Your task to perform on an android device: Where can I buy a nice beach towel? Image 0: 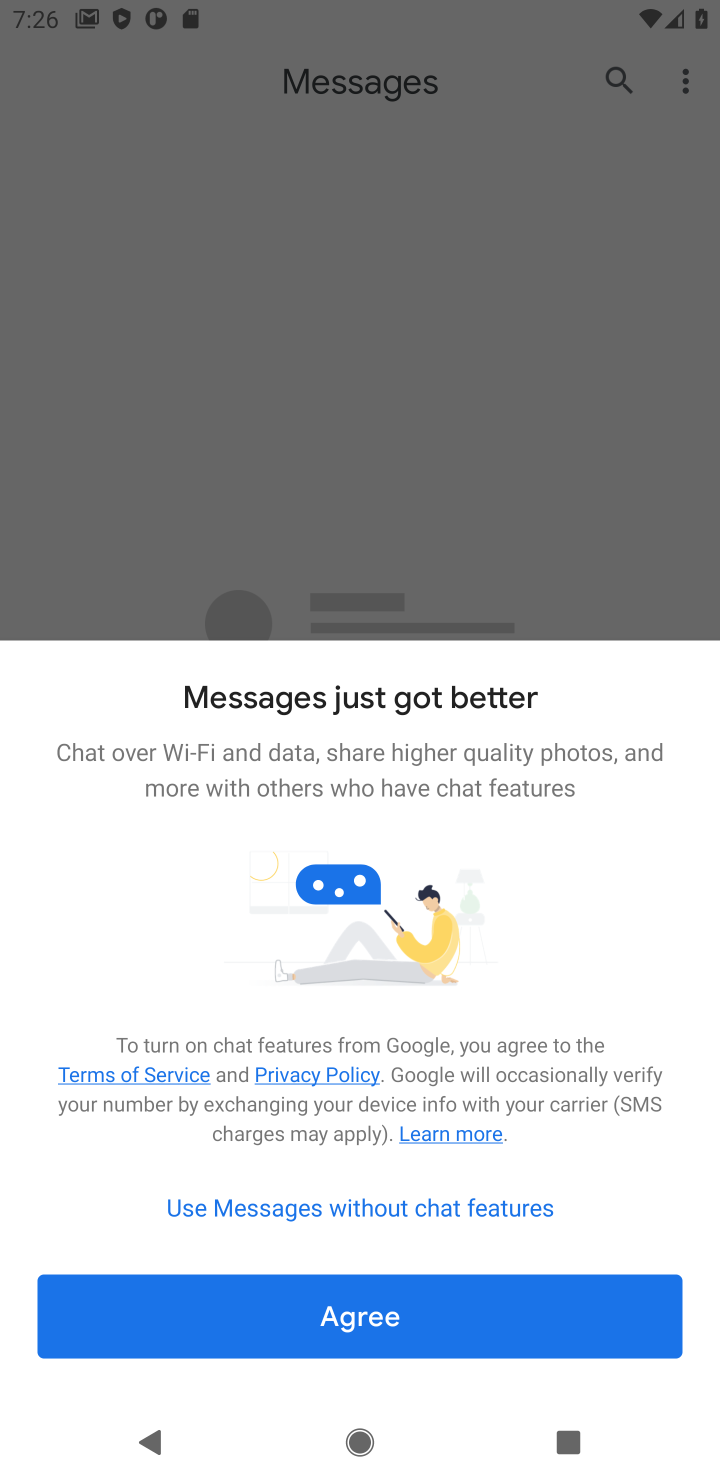
Step 0: press home button
Your task to perform on an android device: Where can I buy a nice beach towel? Image 1: 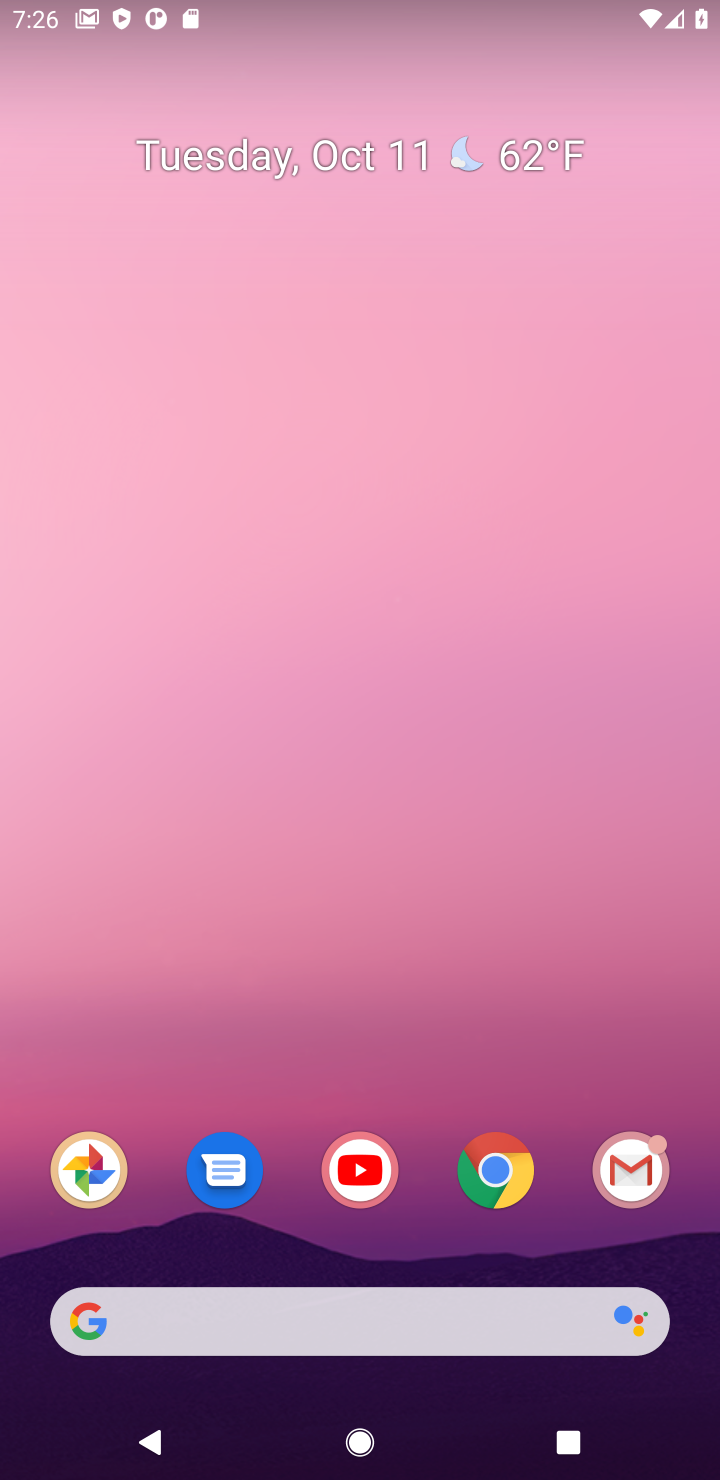
Step 1: drag from (324, 863) to (314, 205)
Your task to perform on an android device: Where can I buy a nice beach towel? Image 2: 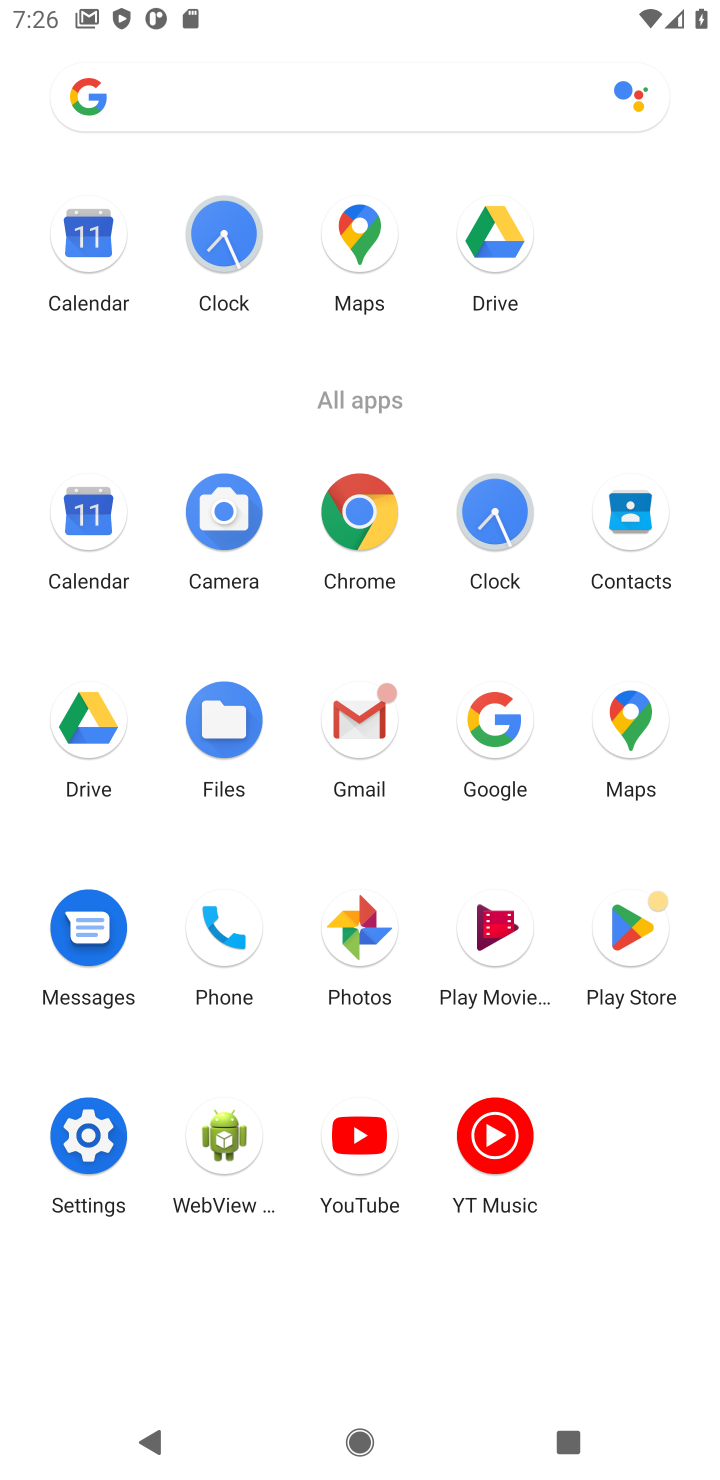
Step 2: click (483, 709)
Your task to perform on an android device: Where can I buy a nice beach towel? Image 3: 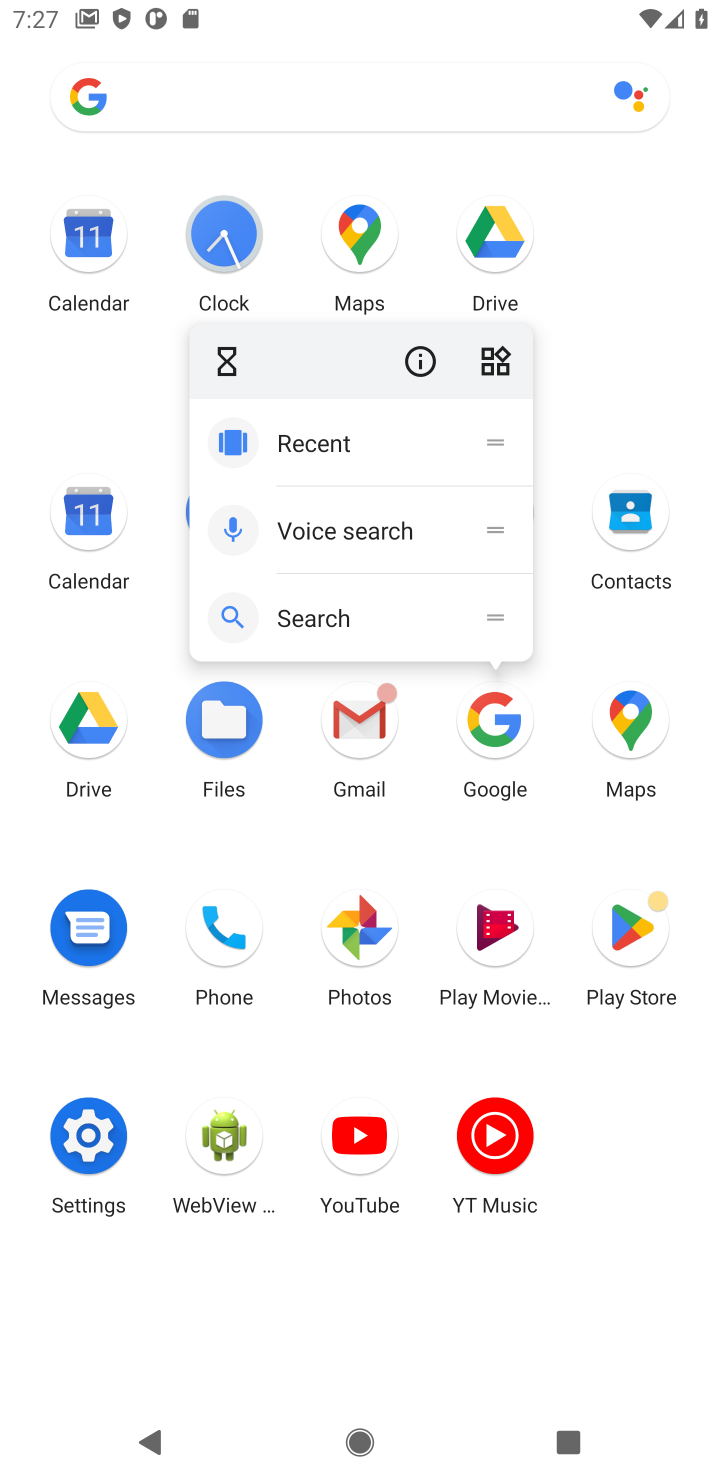
Step 3: click (483, 712)
Your task to perform on an android device: Where can I buy a nice beach towel? Image 4: 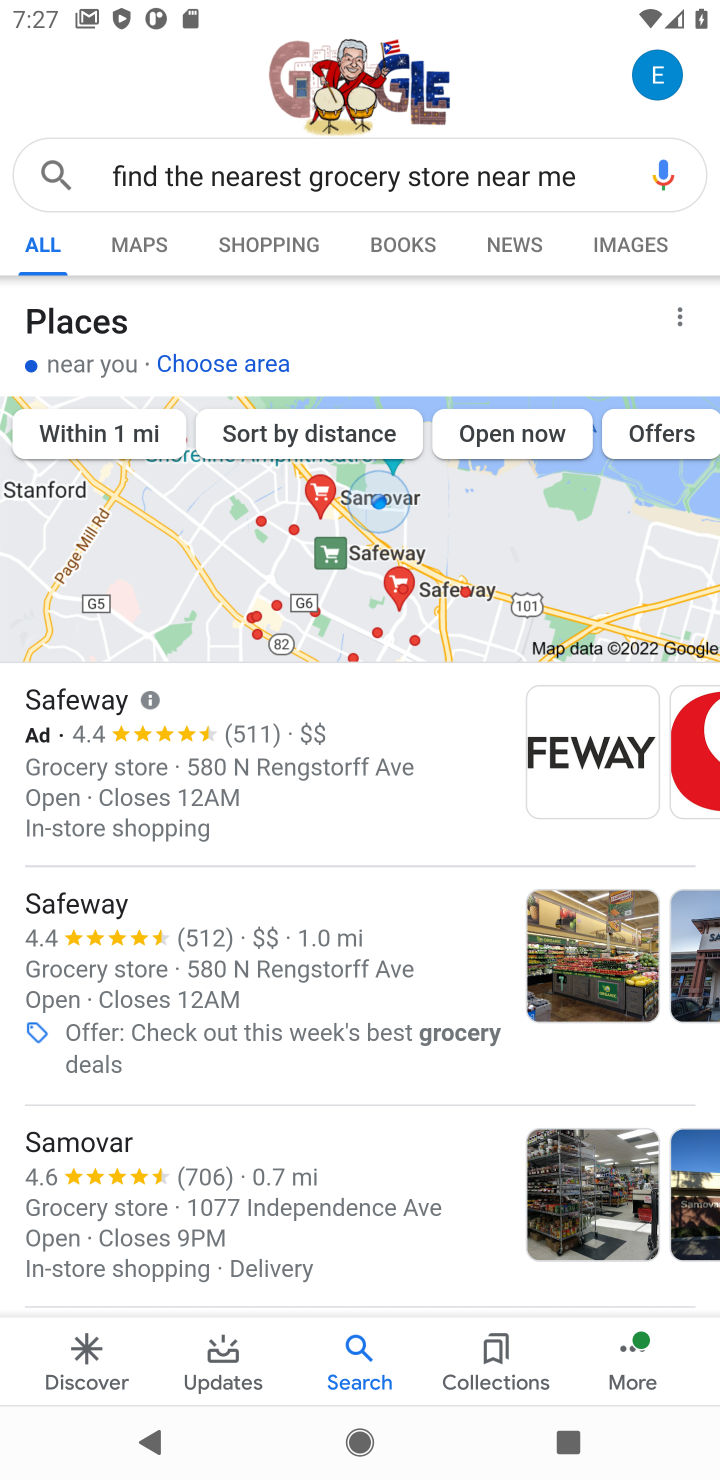
Step 4: click (401, 168)
Your task to perform on an android device: Where can I buy a nice beach towel? Image 5: 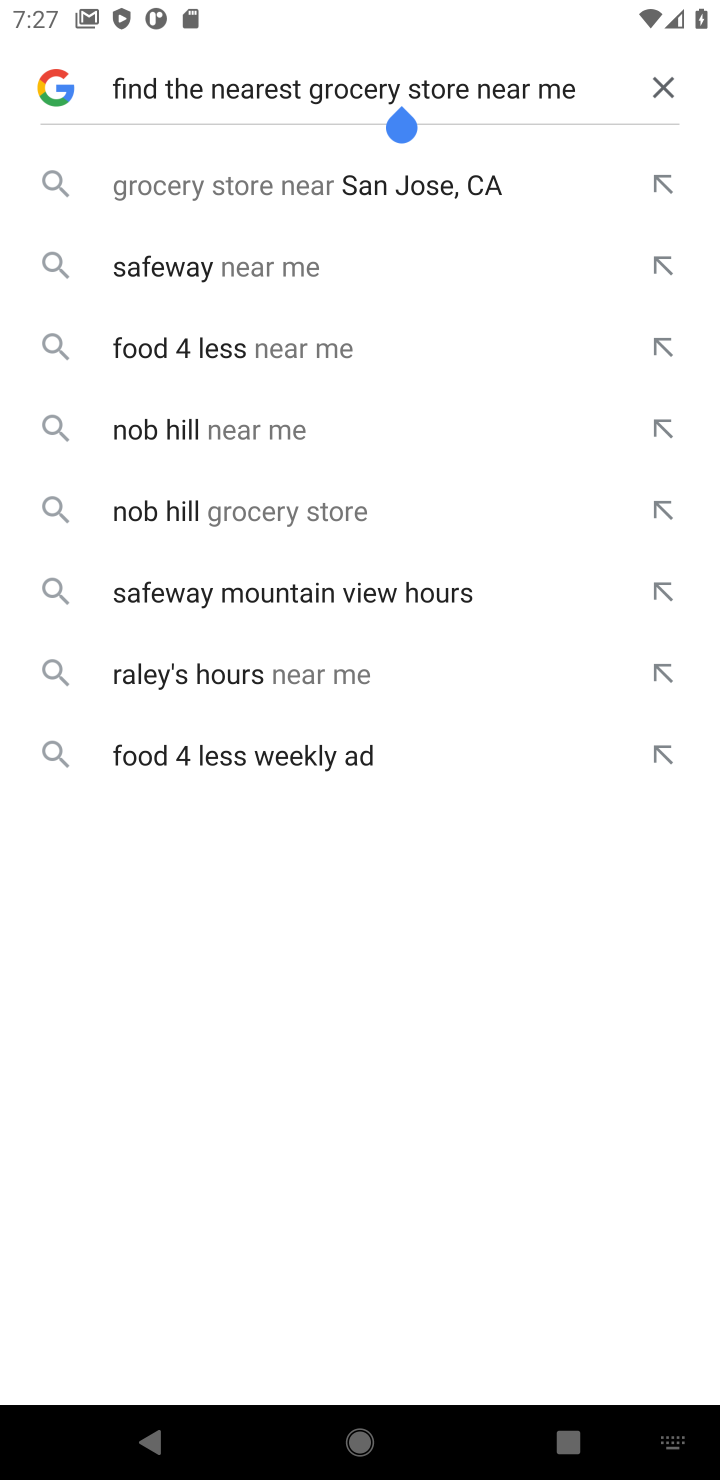
Step 5: click (675, 92)
Your task to perform on an android device: Where can I buy a nice beach towel? Image 6: 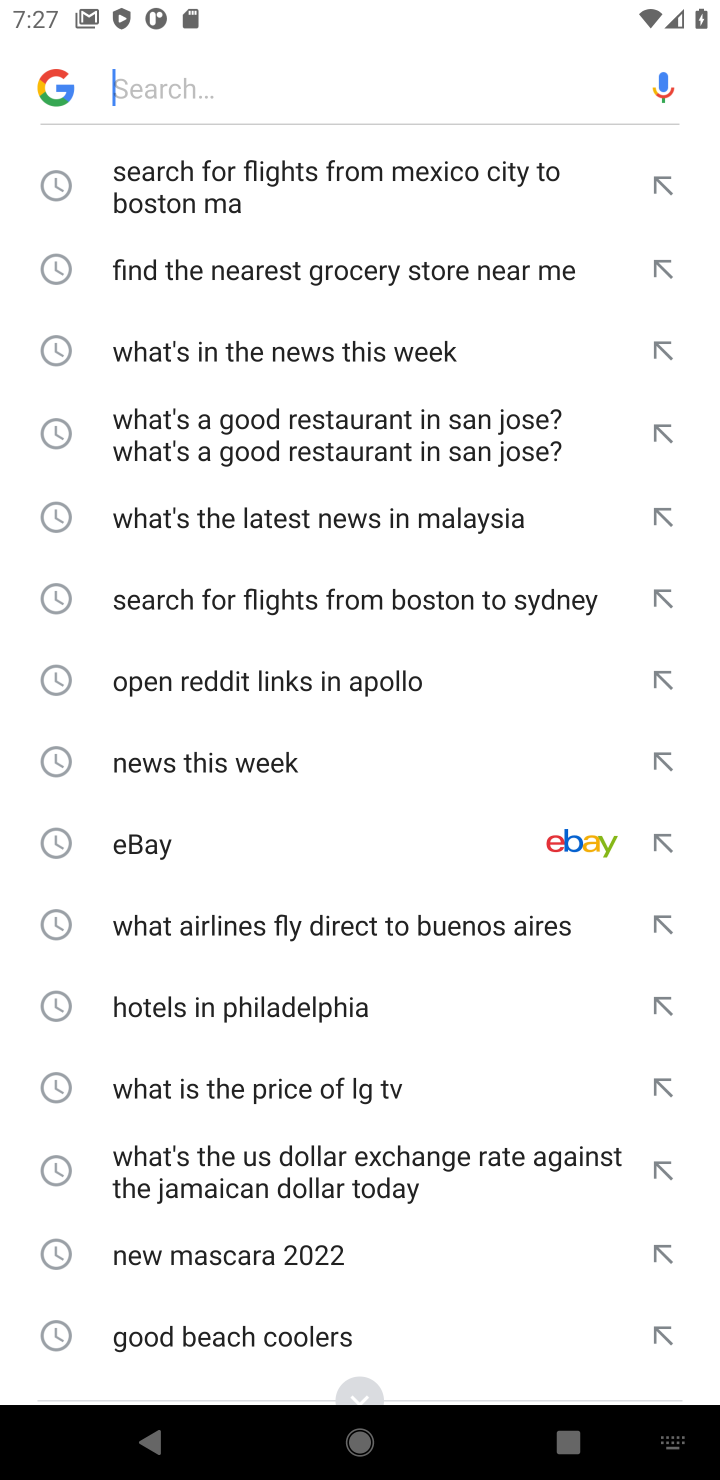
Step 6: click (275, 68)
Your task to perform on an android device: Where can I buy a nice beach towel? Image 7: 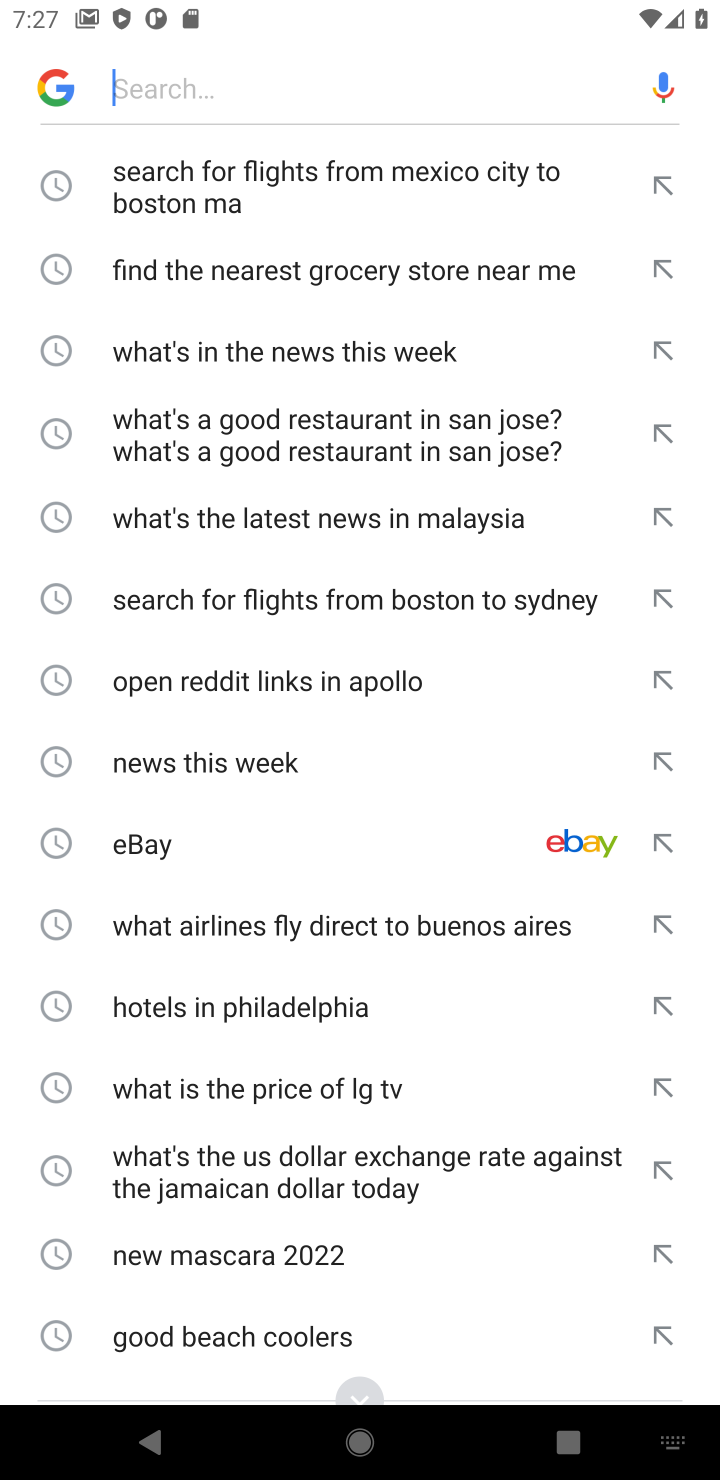
Step 7: type "Where can I buy a nice beach towel? "
Your task to perform on an android device: Where can I buy a nice beach towel? Image 8: 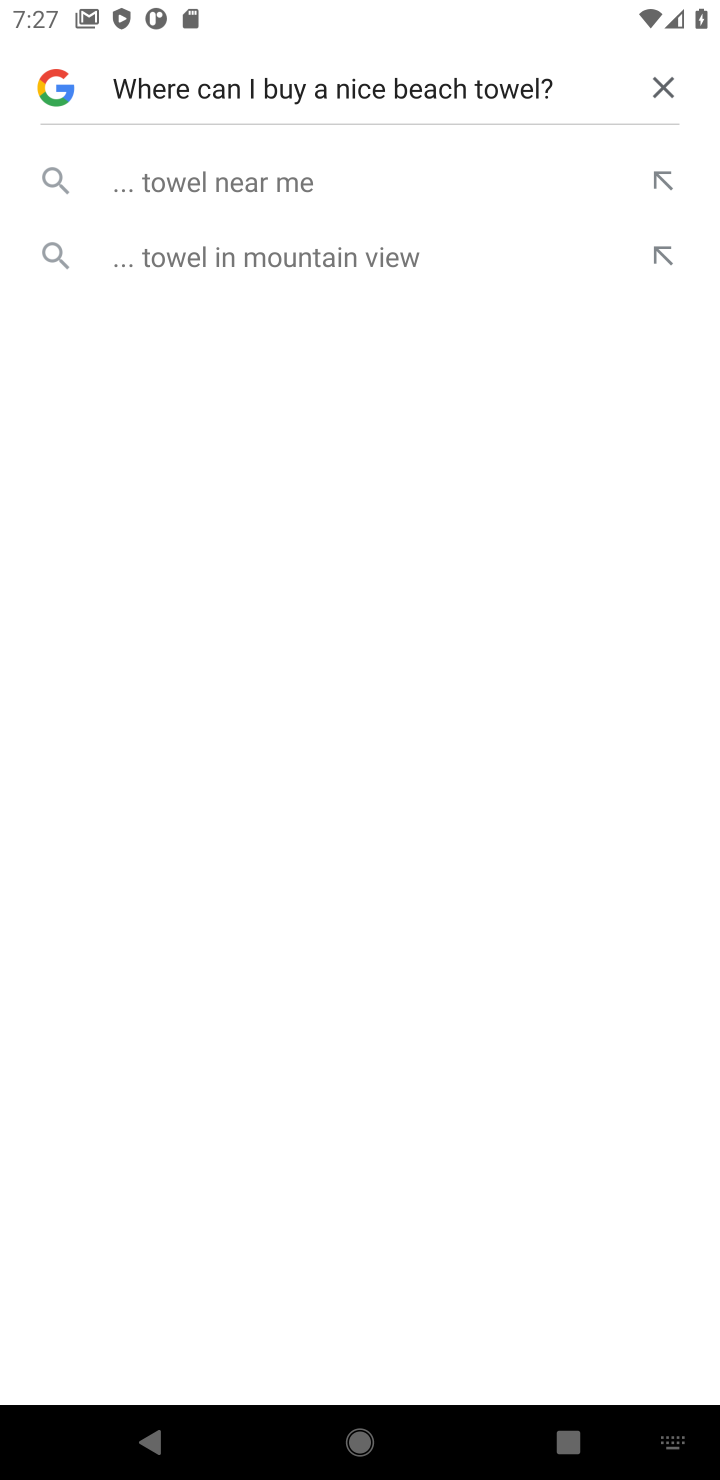
Step 8: click (308, 183)
Your task to perform on an android device: Where can I buy a nice beach towel? Image 9: 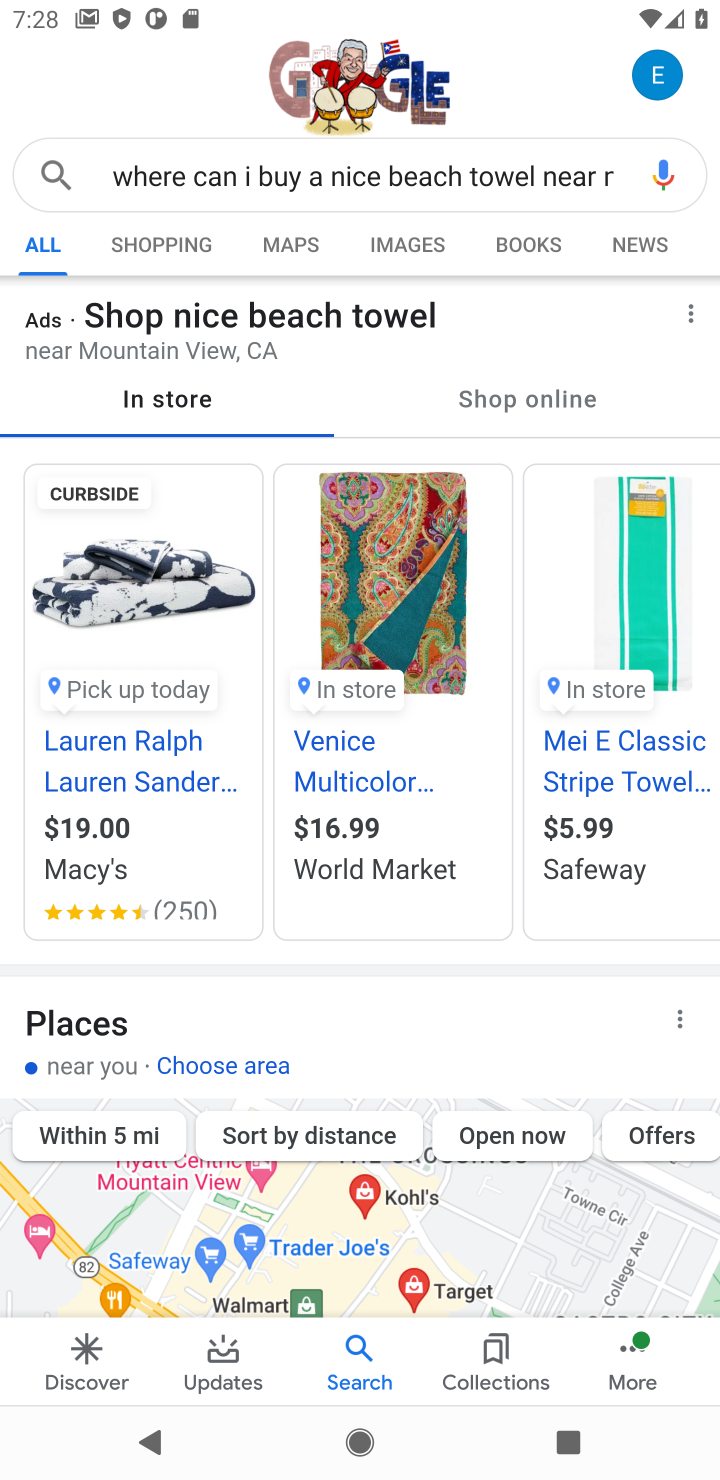
Step 9: task complete